Your task to perform on an android device: See recent photos Image 0: 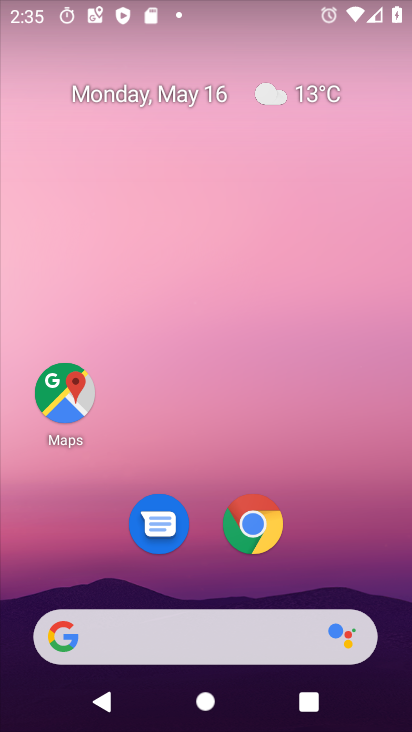
Step 0: drag from (218, 442) to (200, 14)
Your task to perform on an android device: See recent photos Image 1: 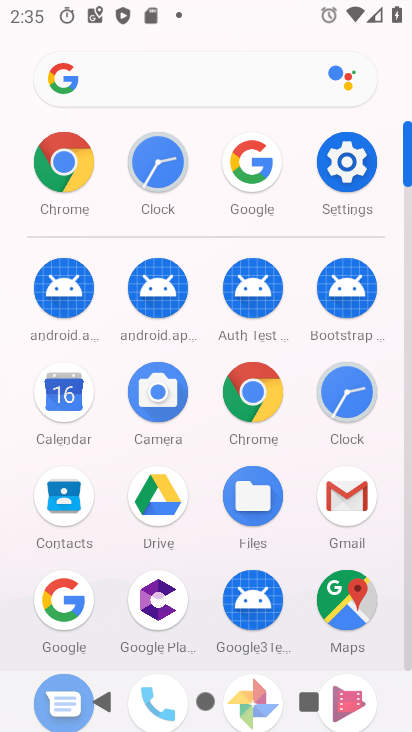
Step 1: drag from (199, 451) to (200, 133)
Your task to perform on an android device: See recent photos Image 2: 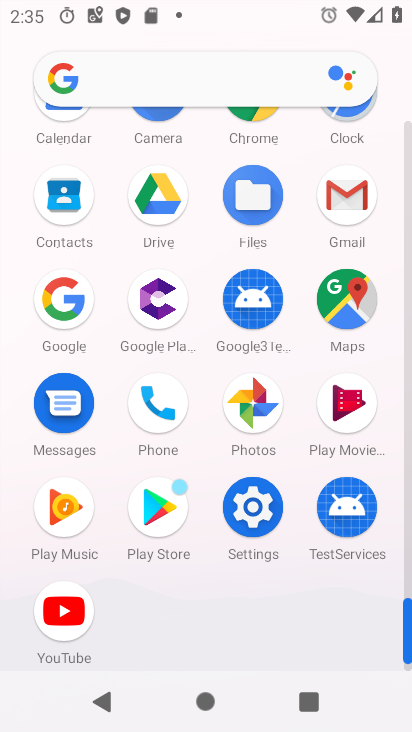
Step 2: click (232, 399)
Your task to perform on an android device: See recent photos Image 3: 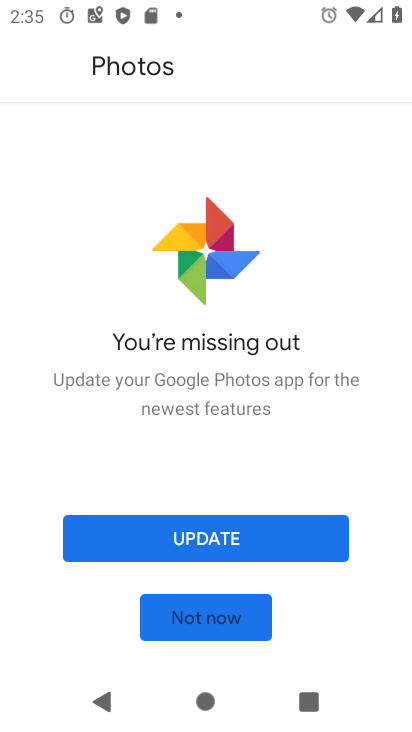
Step 3: click (240, 610)
Your task to perform on an android device: See recent photos Image 4: 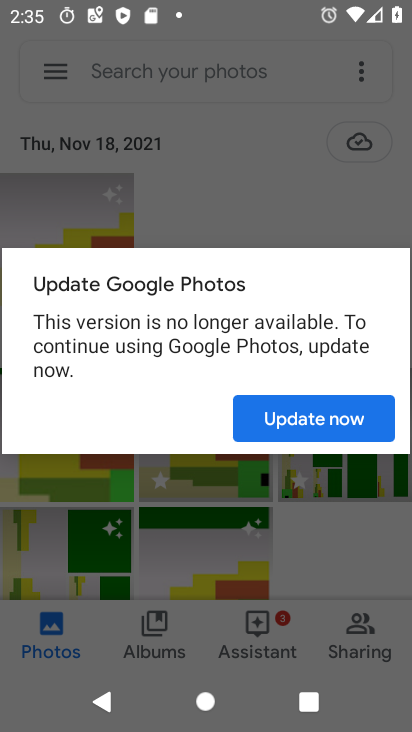
Step 4: click (327, 416)
Your task to perform on an android device: See recent photos Image 5: 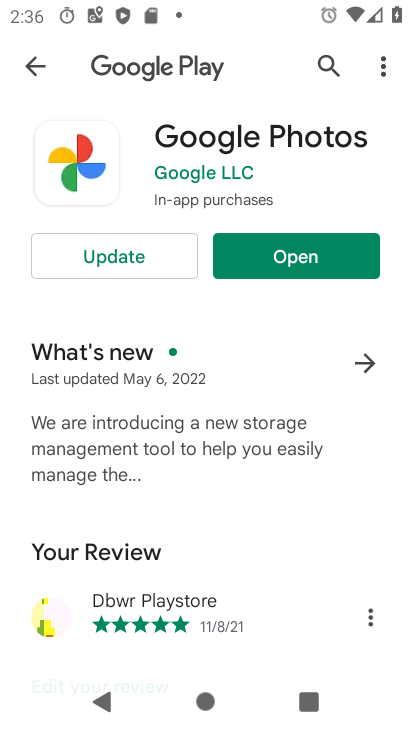
Step 5: click (300, 247)
Your task to perform on an android device: See recent photos Image 6: 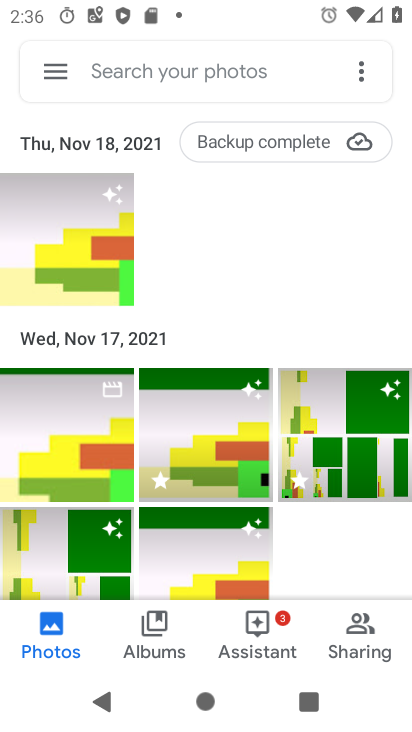
Step 6: task complete